Your task to perform on an android device: What is the recent news? Image 0: 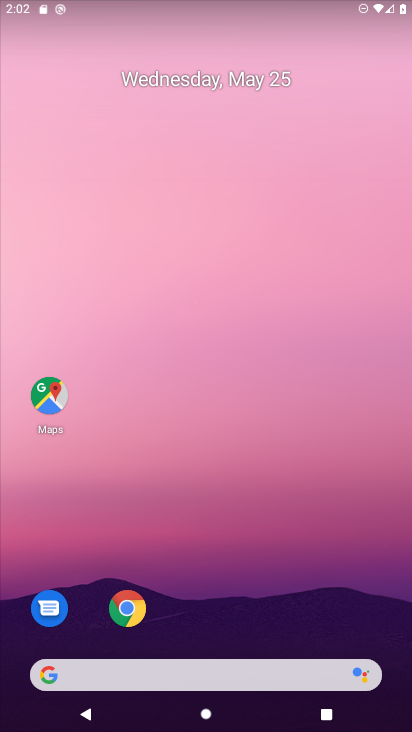
Step 0: drag from (9, 257) to (372, 273)
Your task to perform on an android device: What is the recent news? Image 1: 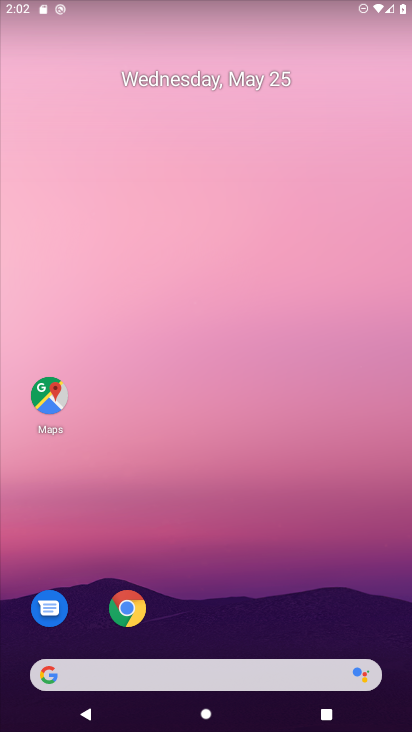
Step 1: task complete